Your task to perform on an android device: turn off sleep mode Image 0: 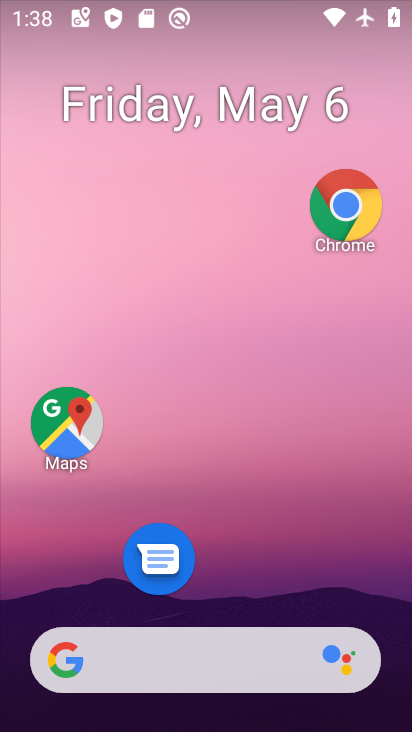
Step 0: press home button
Your task to perform on an android device: turn off sleep mode Image 1: 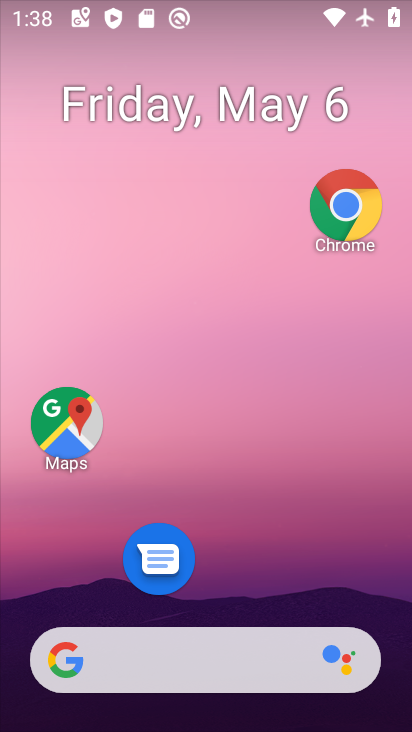
Step 1: drag from (150, 661) to (268, 42)
Your task to perform on an android device: turn off sleep mode Image 2: 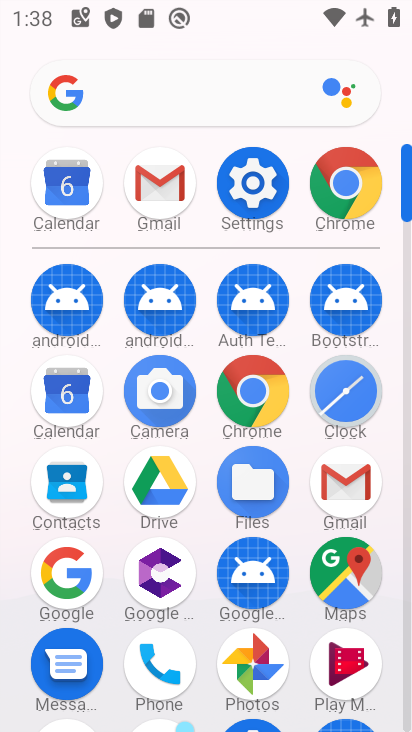
Step 2: click (249, 204)
Your task to perform on an android device: turn off sleep mode Image 3: 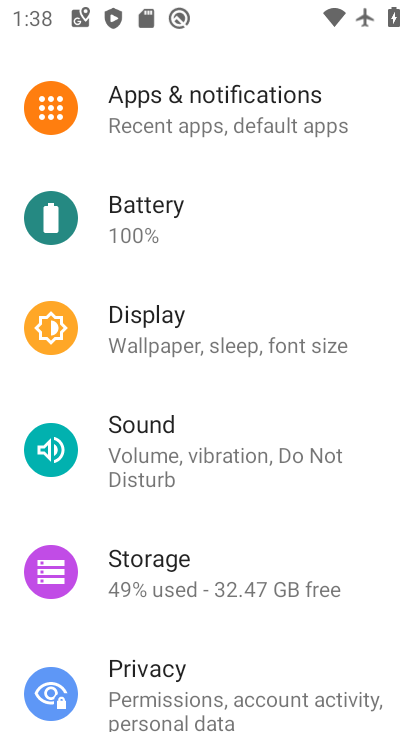
Step 3: click (210, 335)
Your task to perform on an android device: turn off sleep mode Image 4: 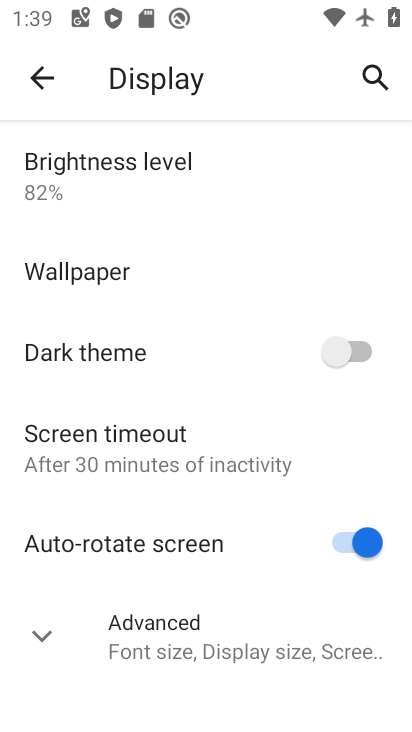
Step 4: task complete